Your task to perform on an android device: Open Yahoo.com Image 0: 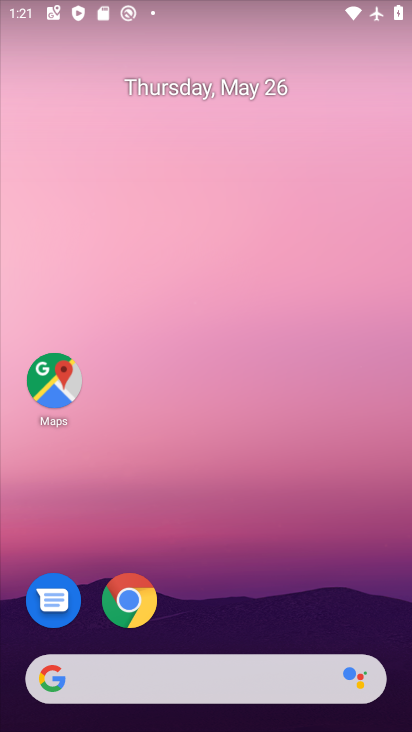
Step 0: click (130, 588)
Your task to perform on an android device: Open Yahoo.com Image 1: 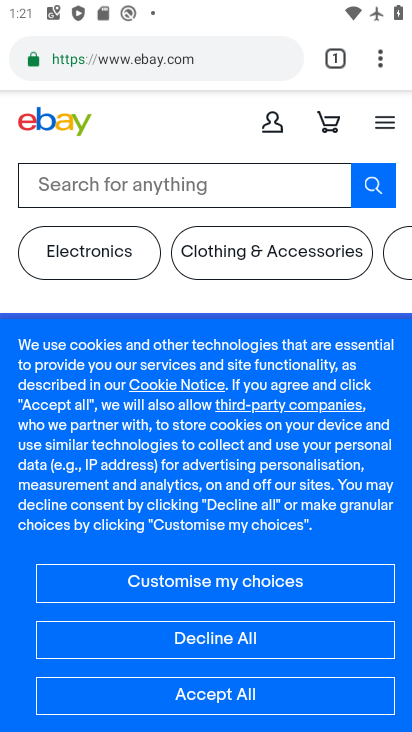
Step 1: click (220, 59)
Your task to perform on an android device: Open Yahoo.com Image 2: 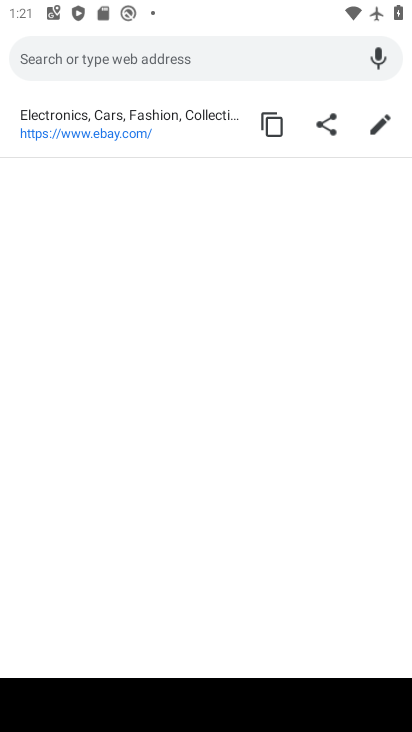
Step 2: type "yahoo.com"
Your task to perform on an android device: Open Yahoo.com Image 3: 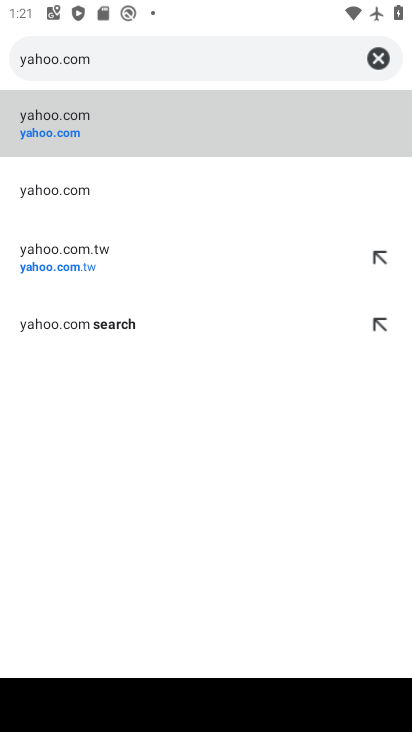
Step 3: click (29, 136)
Your task to perform on an android device: Open Yahoo.com Image 4: 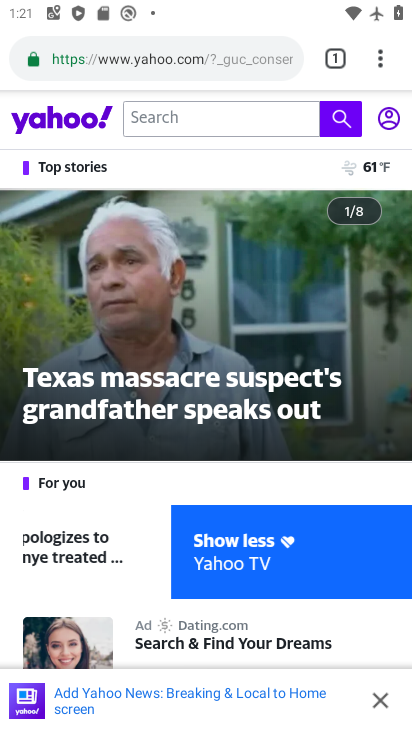
Step 4: task complete